Your task to perform on an android device: turn on location history Image 0: 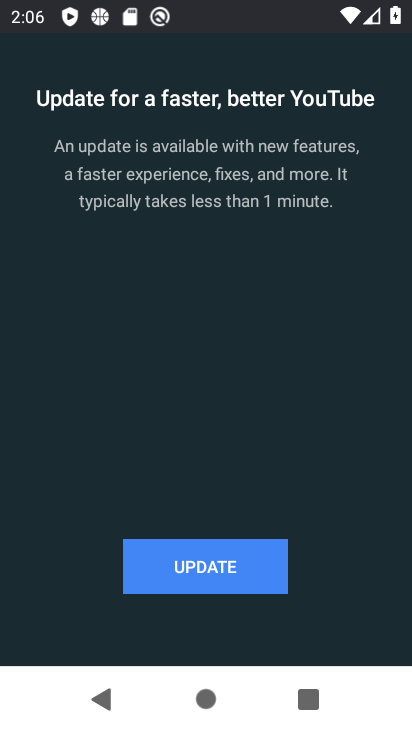
Step 0: press back button
Your task to perform on an android device: turn on location history Image 1: 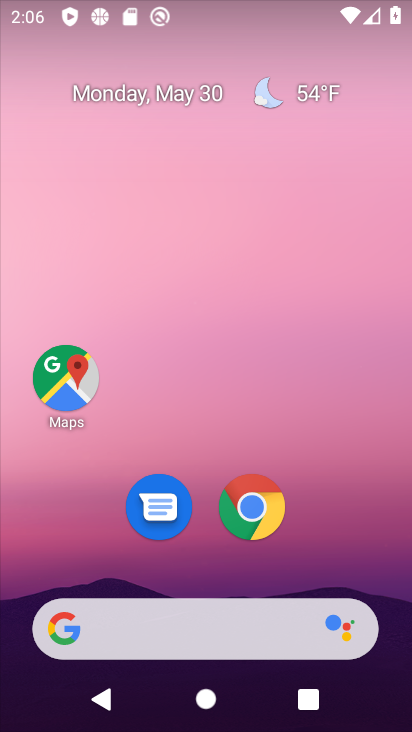
Step 1: drag from (396, 608) to (265, 63)
Your task to perform on an android device: turn on location history Image 2: 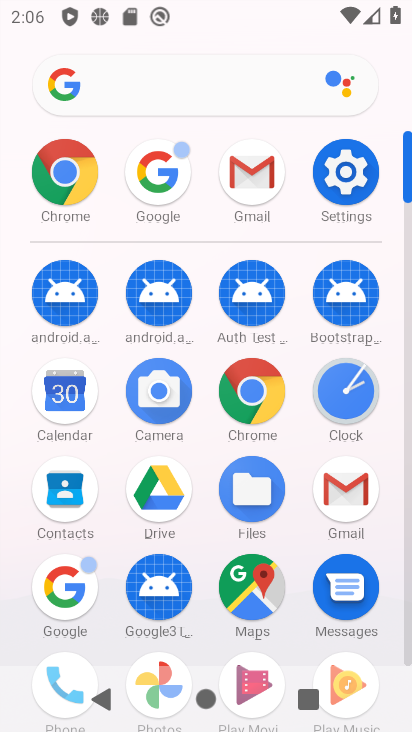
Step 2: click (353, 159)
Your task to perform on an android device: turn on location history Image 3: 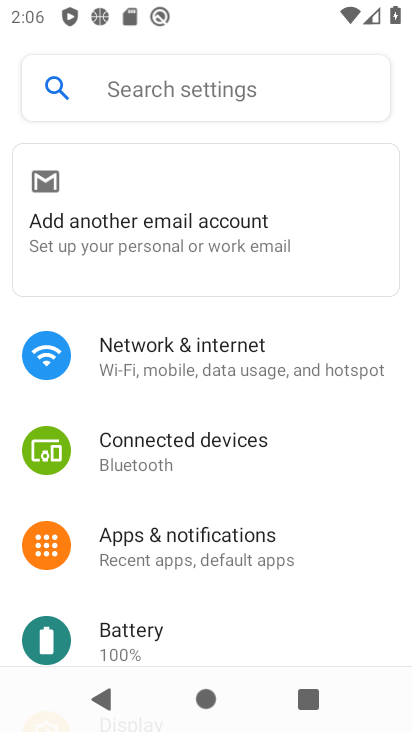
Step 3: drag from (165, 606) to (199, 91)
Your task to perform on an android device: turn on location history Image 4: 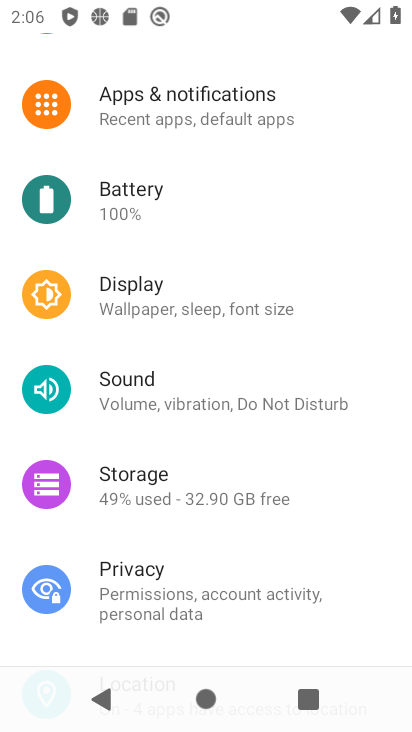
Step 4: drag from (121, 567) to (160, 49)
Your task to perform on an android device: turn on location history Image 5: 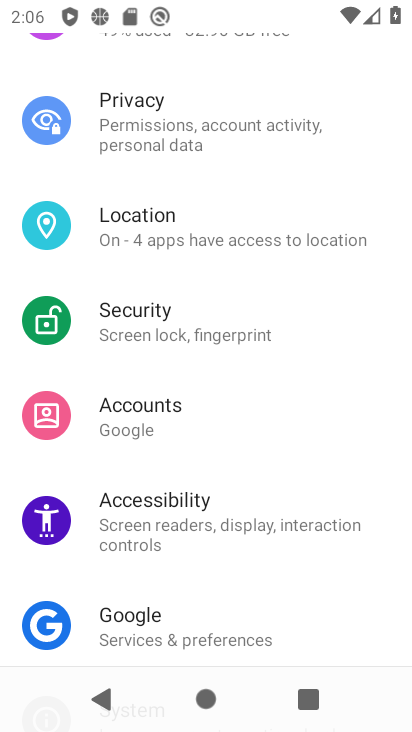
Step 5: click (182, 239)
Your task to perform on an android device: turn on location history Image 6: 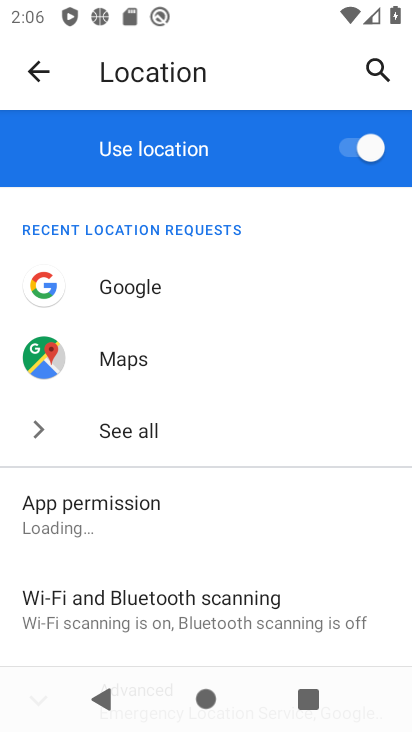
Step 6: drag from (93, 547) to (90, 136)
Your task to perform on an android device: turn on location history Image 7: 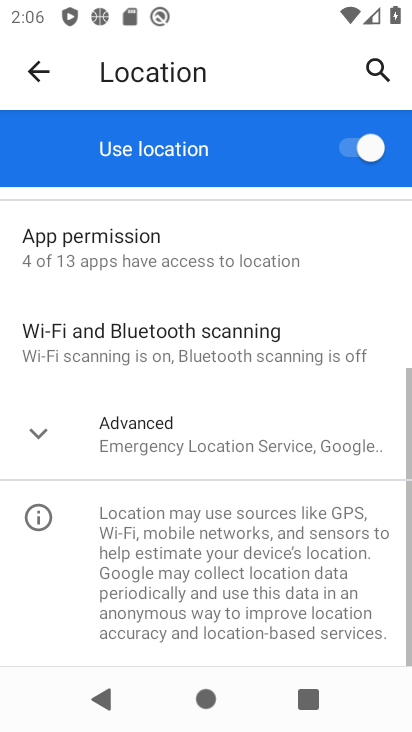
Step 7: click (82, 456)
Your task to perform on an android device: turn on location history Image 8: 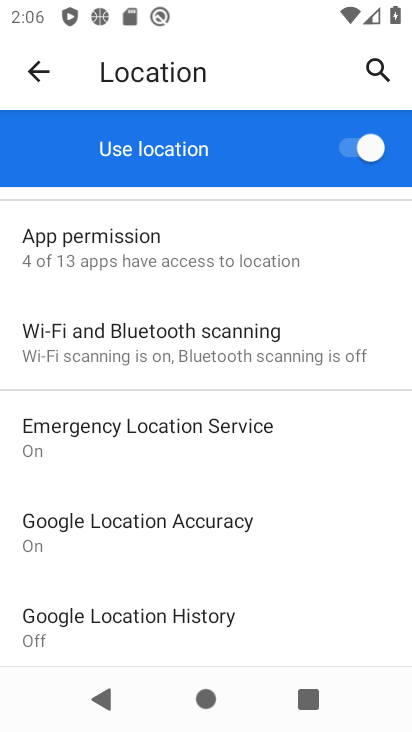
Step 8: click (207, 619)
Your task to perform on an android device: turn on location history Image 9: 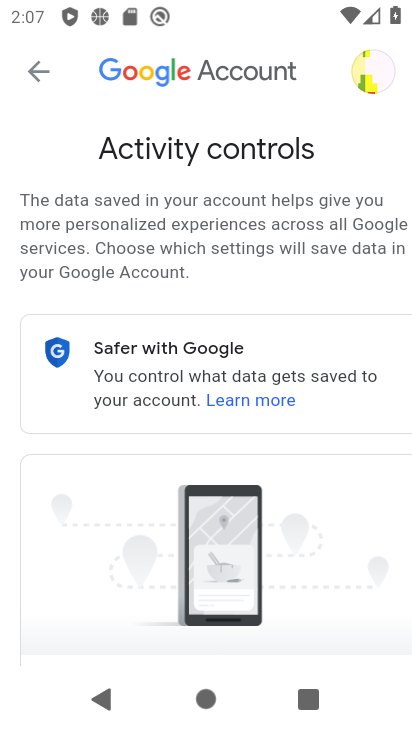
Step 9: task complete